Your task to perform on an android device: change timer sound Image 0: 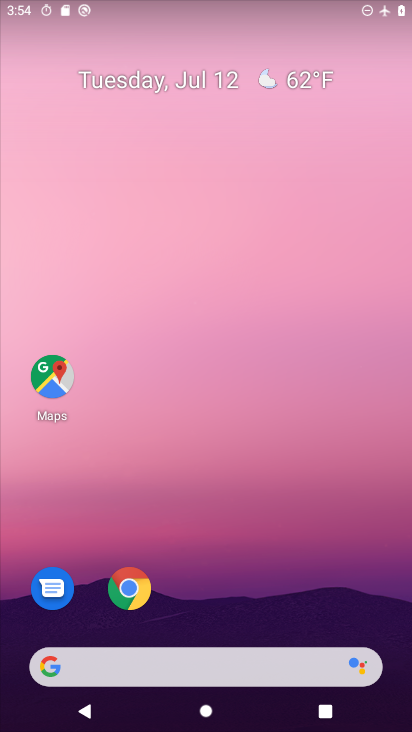
Step 0: drag from (266, 376) to (339, 3)
Your task to perform on an android device: change timer sound Image 1: 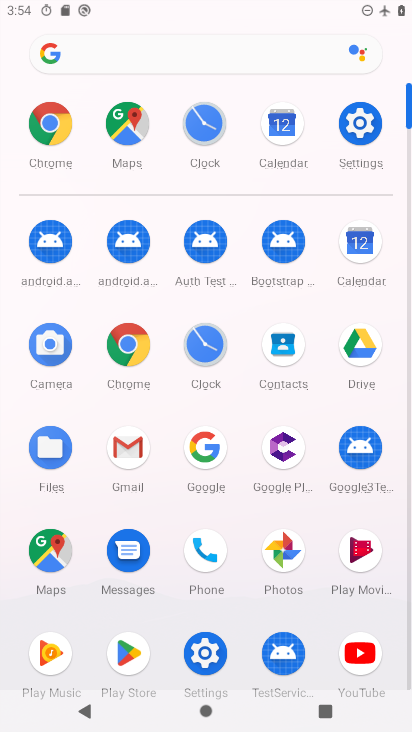
Step 1: click (214, 361)
Your task to perform on an android device: change timer sound Image 2: 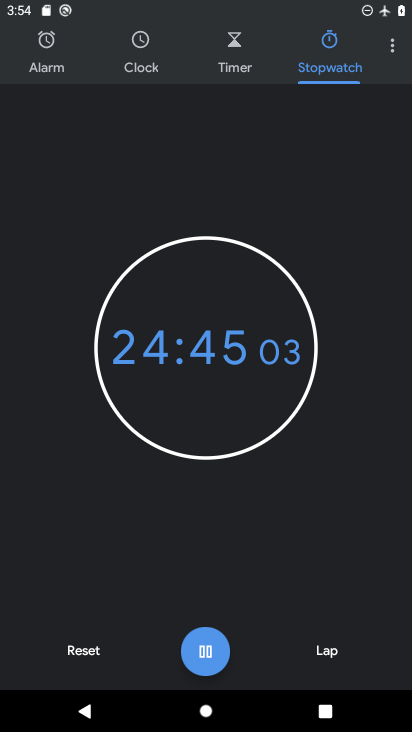
Step 2: click (75, 647)
Your task to perform on an android device: change timer sound Image 3: 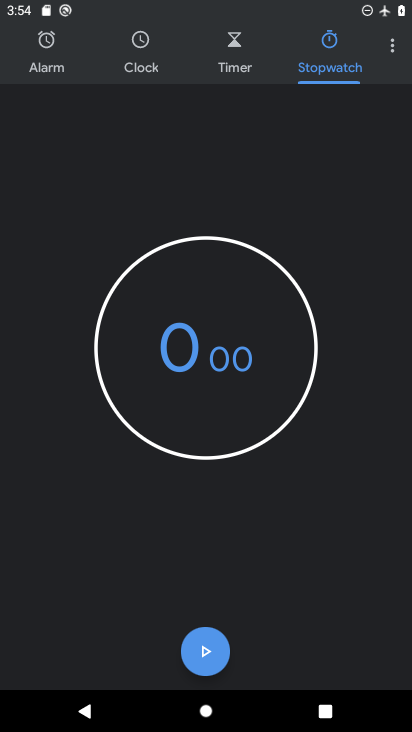
Step 3: click (391, 48)
Your task to perform on an android device: change timer sound Image 4: 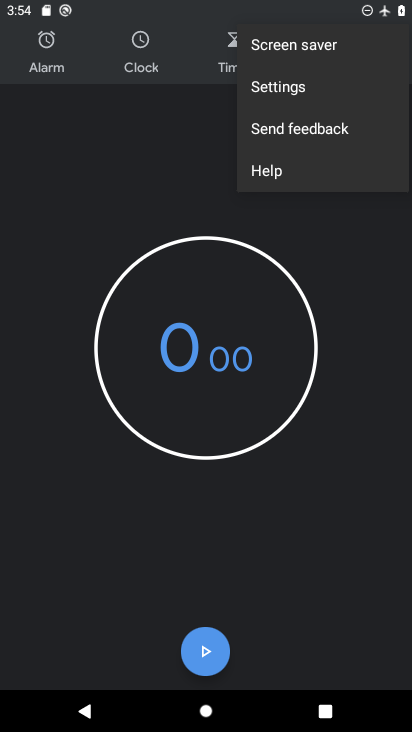
Step 4: click (288, 92)
Your task to perform on an android device: change timer sound Image 5: 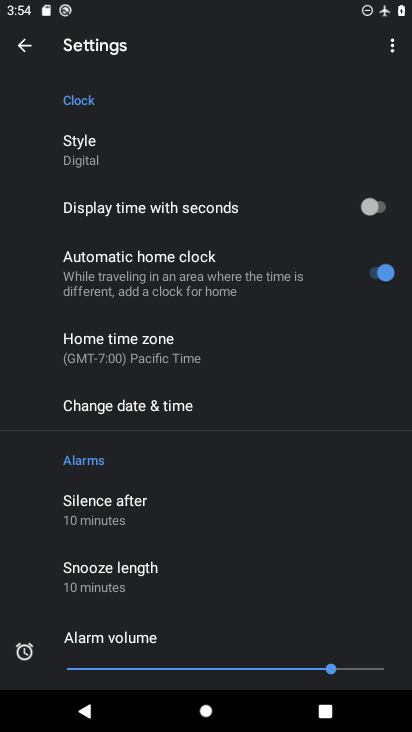
Step 5: drag from (189, 591) to (219, 165)
Your task to perform on an android device: change timer sound Image 6: 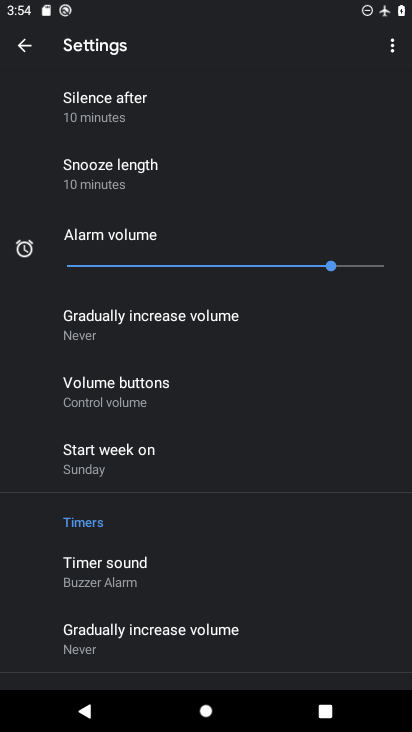
Step 6: click (182, 580)
Your task to perform on an android device: change timer sound Image 7: 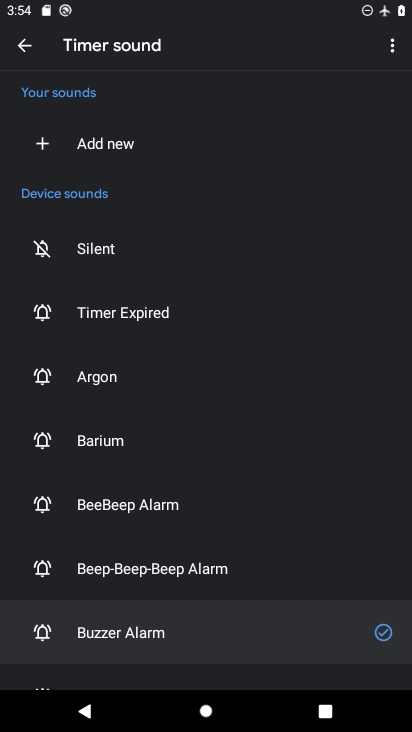
Step 7: click (111, 308)
Your task to perform on an android device: change timer sound Image 8: 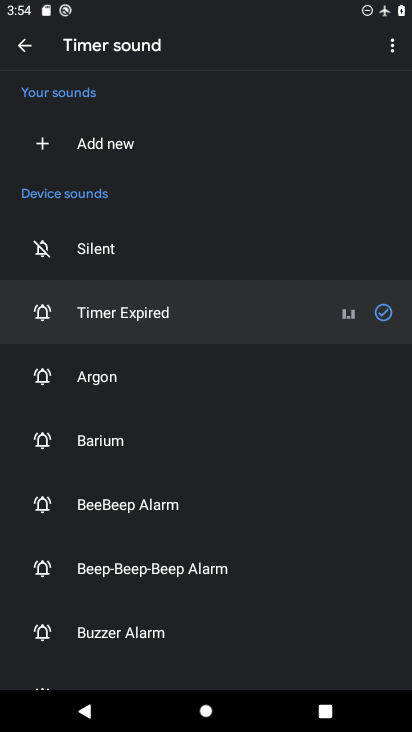
Step 8: click (105, 323)
Your task to perform on an android device: change timer sound Image 9: 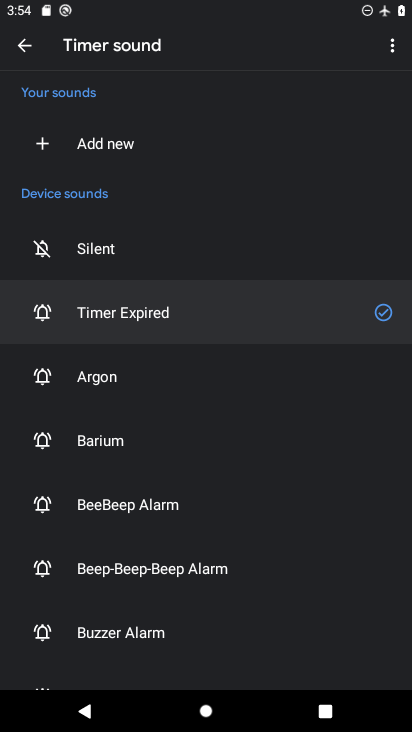
Step 9: task complete